Your task to perform on an android device: turn off improve location accuracy Image 0: 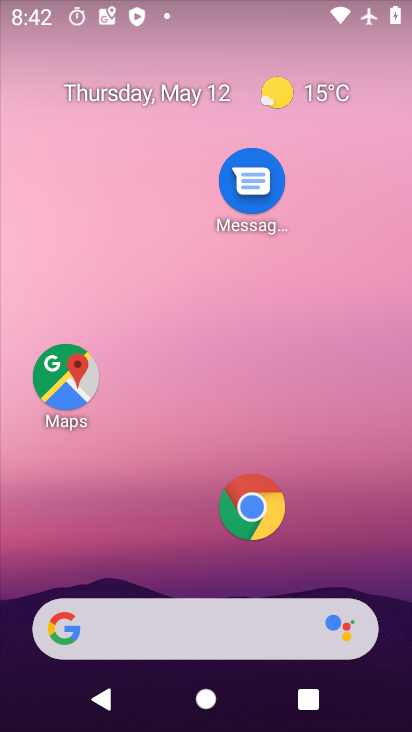
Step 0: drag from (152, 387) to (231, 43)
Your task to perform on an android device: turn off improve location accuracy Image 1: 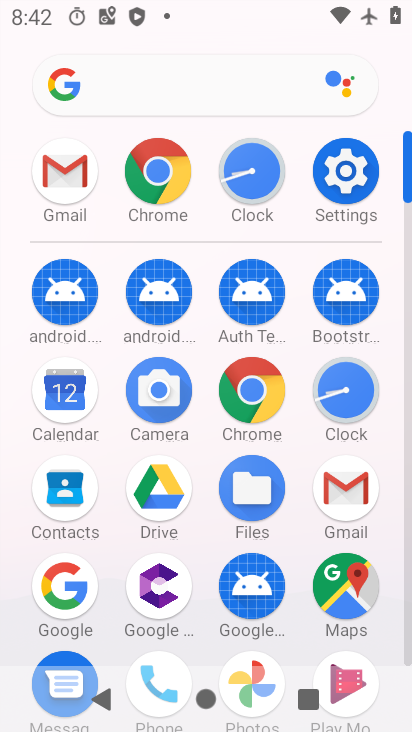
Step 1: click (346, 174)
Your task to perform on an android device: turn off improve location accuracy Image 2: 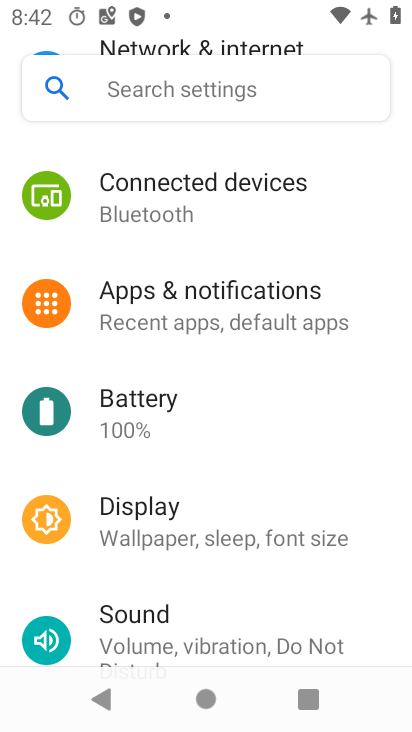
Step 2: drag from (222, 517) to (263, 321)
Your task to perform on an android device: turn off improve location accuracy Image 3: 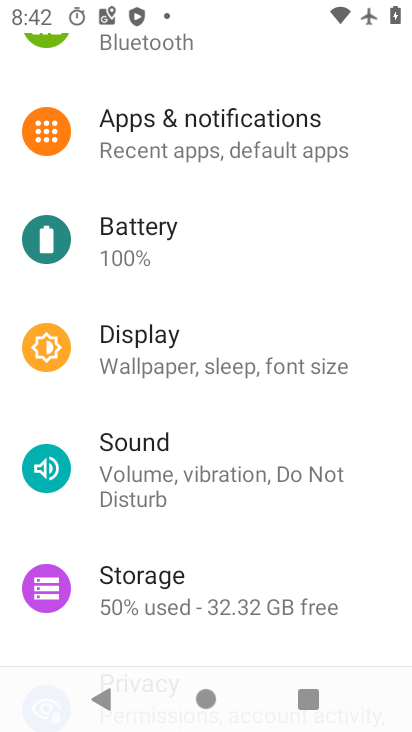
Step 3: drag from (217, 587) to (222, 330)
Your task to perform on an android device: turn off improve location accuracy Image 4: 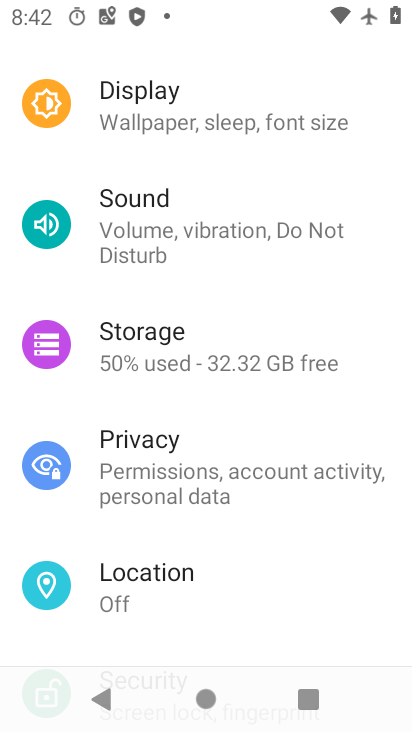
Step 4: click (181, 594)
Your task to perform on an android device: turn off improve location accuracy Image 5: 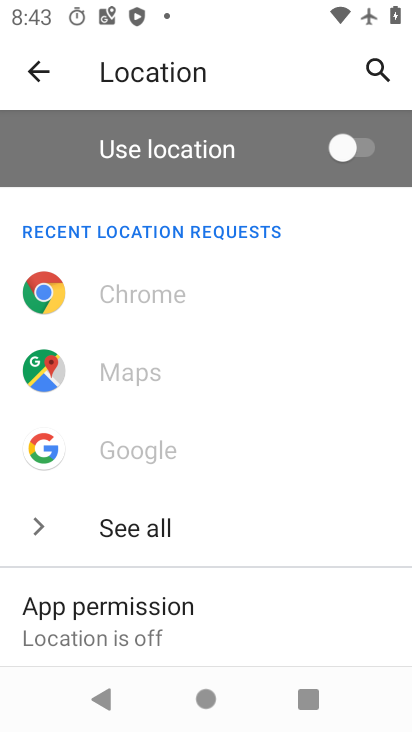
Step 5: drag from (181, 595) to (274, 177)
Your task to perform on an android device: turn off improve location accuracy Image 6: 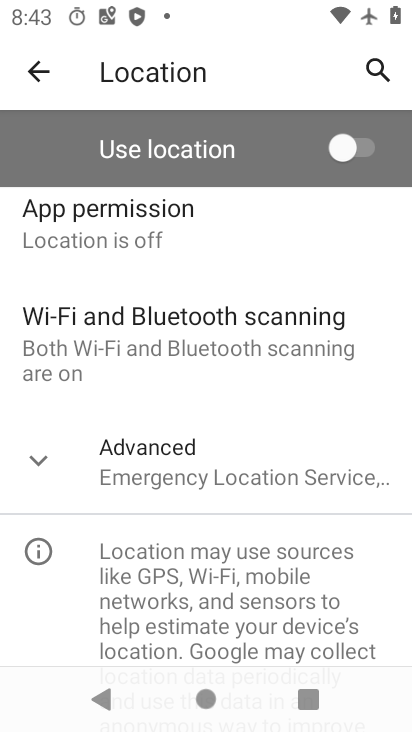
Step 6: click (262, 455)
Your task to perform on an android device: turn off improve location accuracy Image 7: 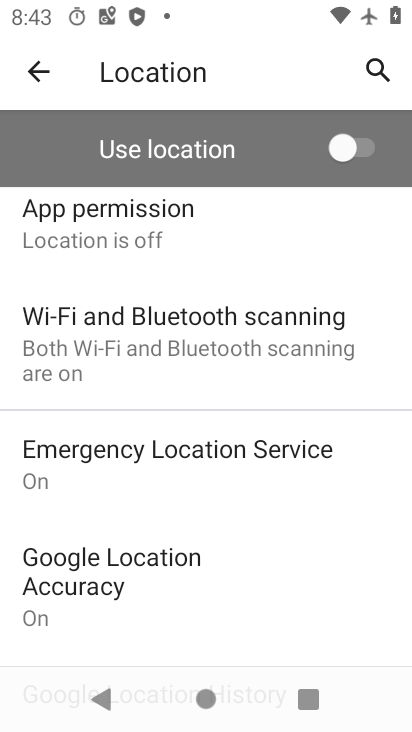
Step 7: click (201, 589)
Your task to perform on an android device: turn off improve location accuracy Image 8: 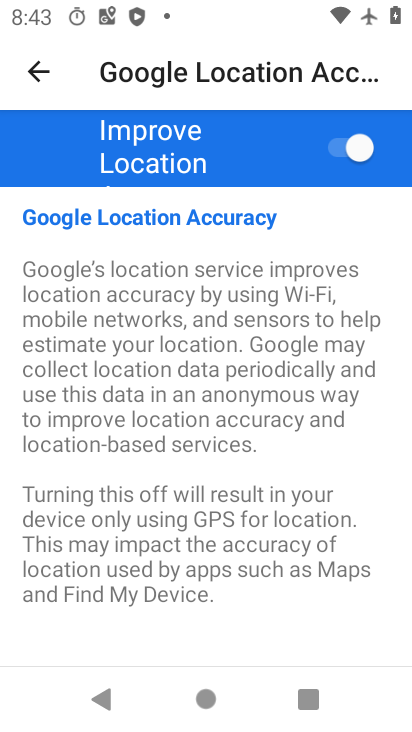
Step 8: click (349, 149)
Your task to perform on an android device: turn off improve location accuracy Image 9: 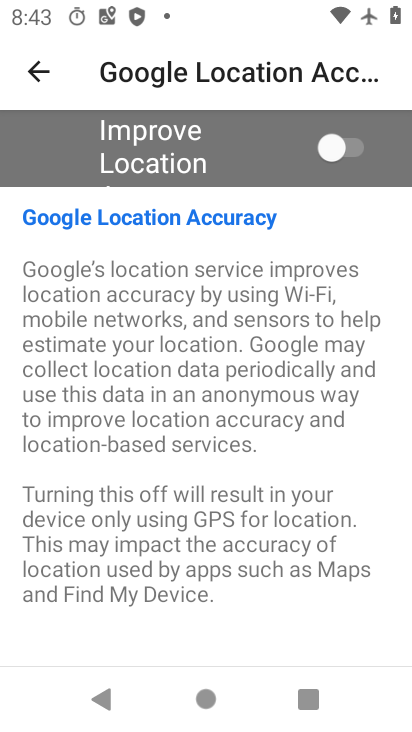
Step 9: task complete